Your task to perform on an android device: Go to CNN.com Image 0: 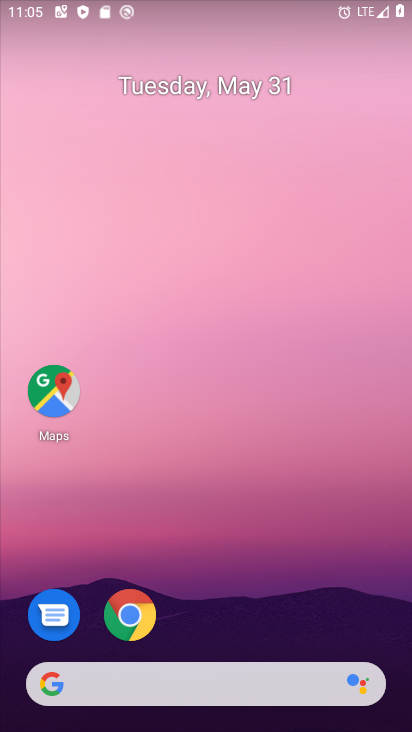
Step 0: drag from (335, 589) to (329, 87)
Your task to perform on an android device: Go to CNN.com Image 1: 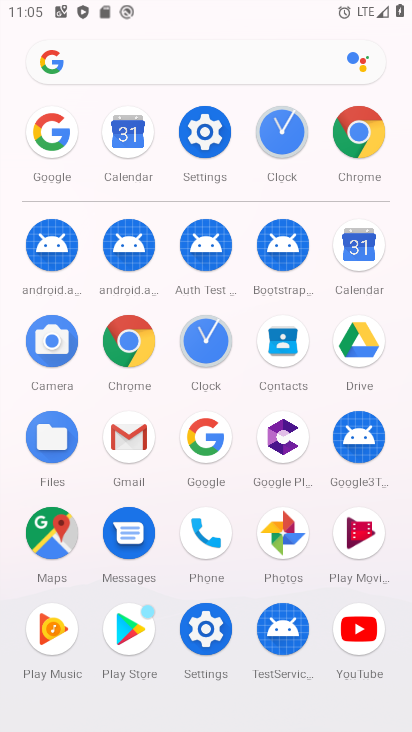
Step 1: click (342, 142)
Your task to perform on an android device: Go to CNN.com Image 2: 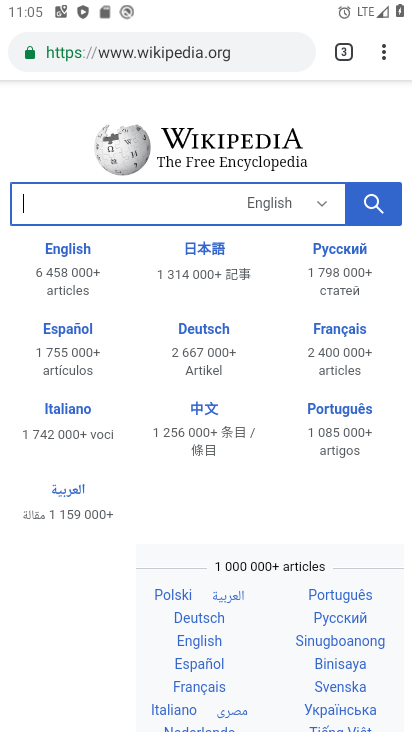
Step 2: click (217, 48)
Your task to perform on an android device: Go to CNN.com Image 3: 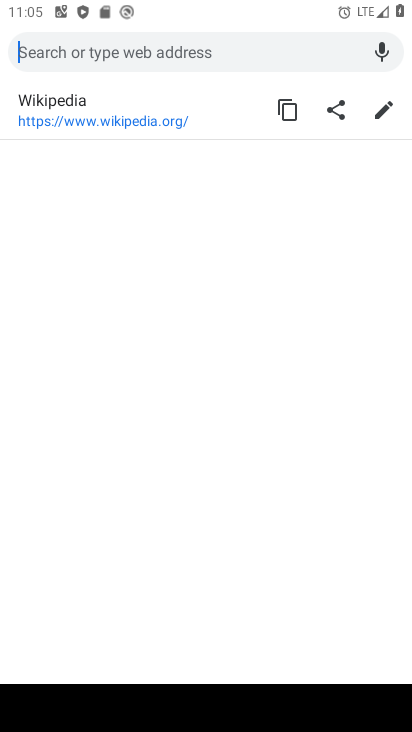
Step 3: type "cnn"
Your task to perform on an android device: Go to CNN.com Image 4: 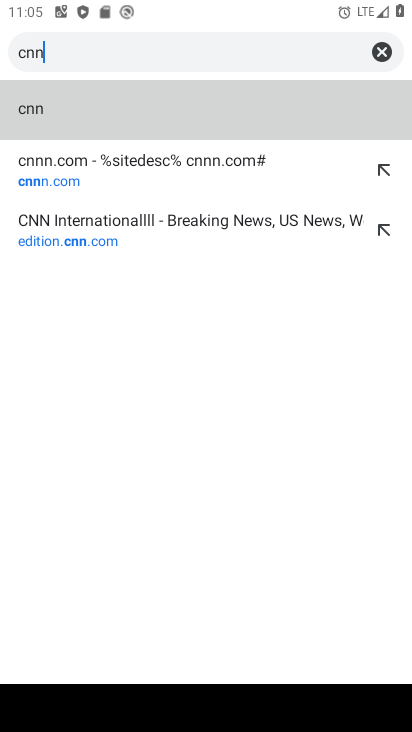
Step 4: click (105, 171)
Your task to perform on an android device: Go to CNN.com Image 5: 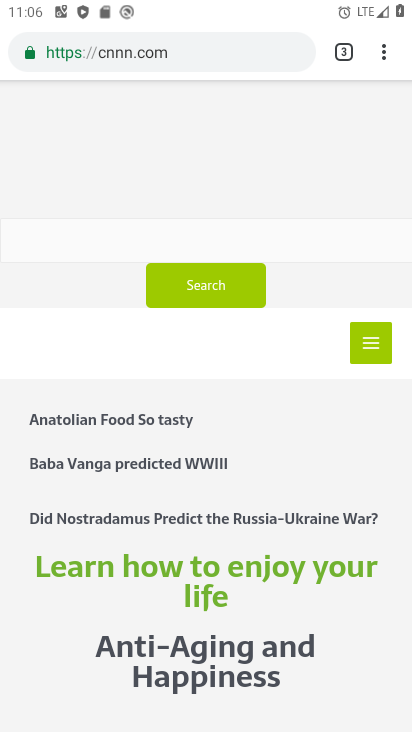
Step 5: task complete